Your task to perform on an android device: Go to settings Image 0: 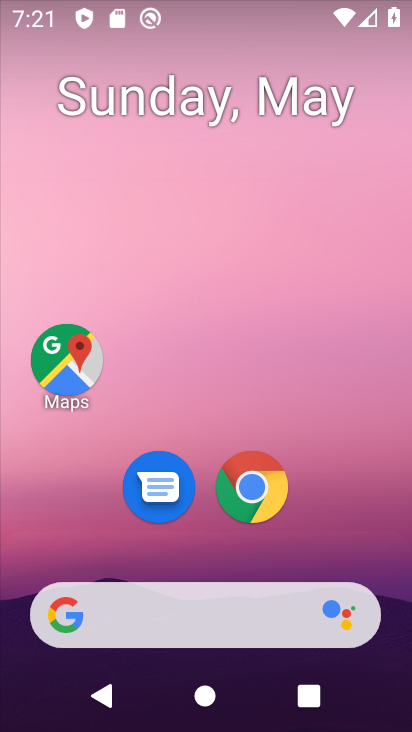
Step 0: drag from (367, 426) to (368, 97)
Your task to perform on an android device: Go to settings Image 1: 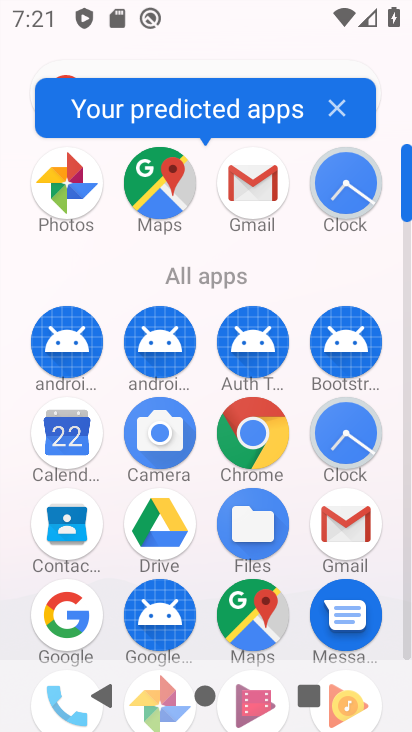
Step 1: drag from (382, 559) to (395, 267)
Your task to perform on an android device: Go to settings Image 2: 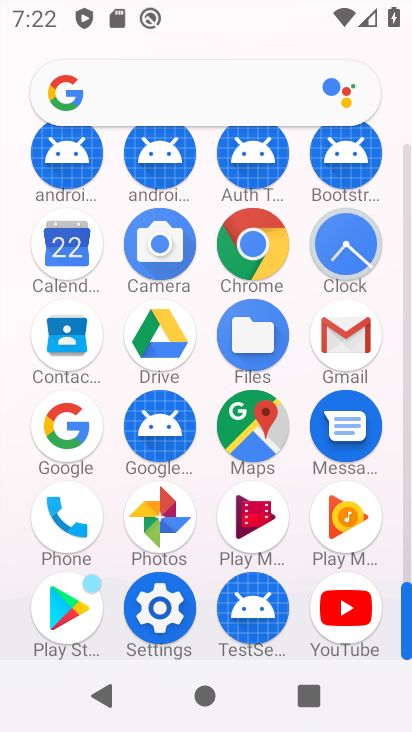
Step 2: click (165, 626)
Your task to perform on an android device: Go to settings Image 3: 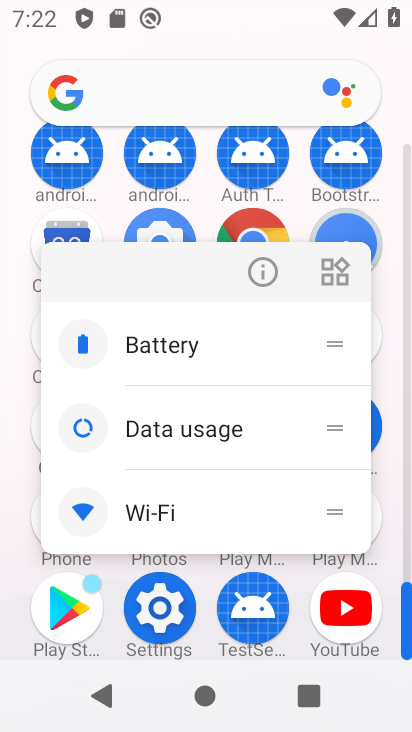
Step 3: click (165, 626)
Your task to perform on an android device: Go to settings Image 4: 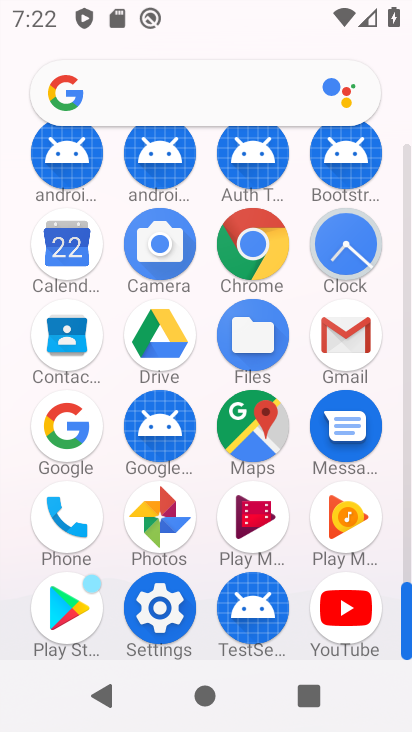
Step 4: click (170, 615)
Your task to perform on an android device: Go to settings Image 5: 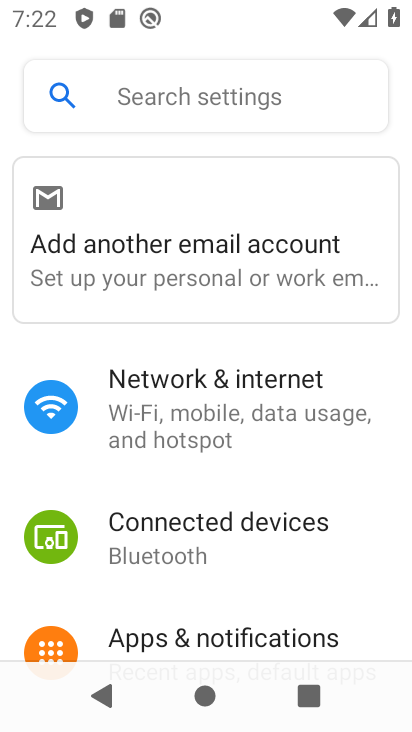
Step 5: task complete